Your task to perform on an android device: Open Android settings Image 0: 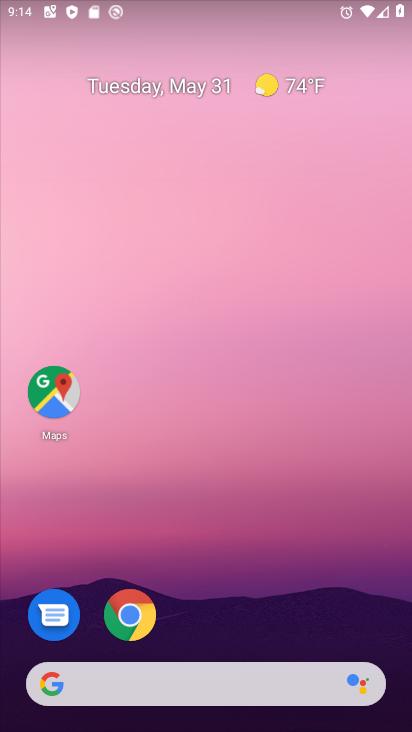
Step 0: drag from (216, 636) to (224, 187)
Your task to perform on an android device: Open Android settings Image 1: 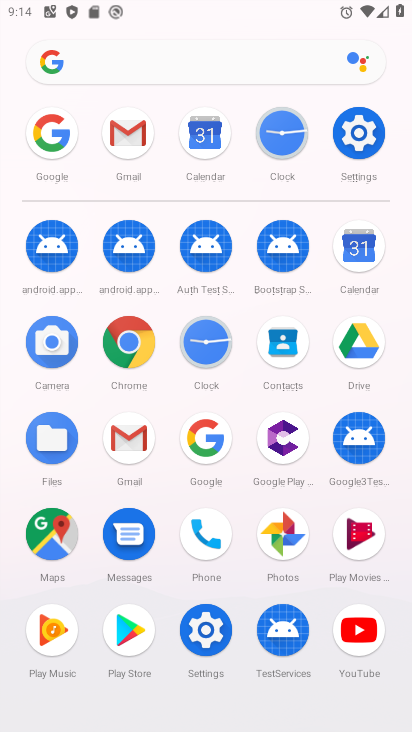
Step 1: click (359, 151)
Your task to perform on an android device: Open Android settings Image 2: 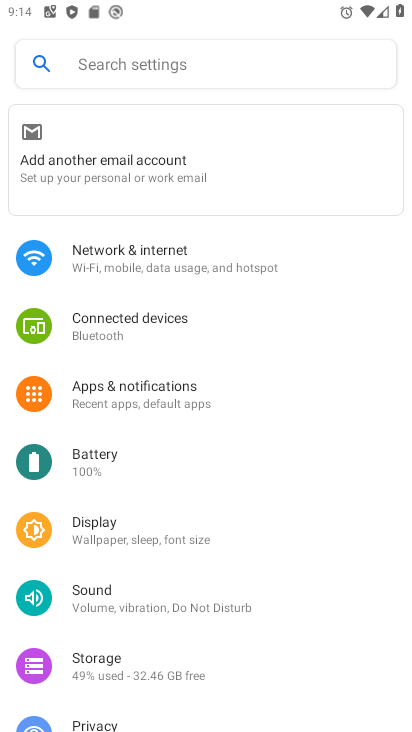
Step 2: task complete